Your task to perform on an android device: Clear the cart on newegg.com. Search for dell xps on newegg.com, select the first entry, and add it to the cart. Image 0: 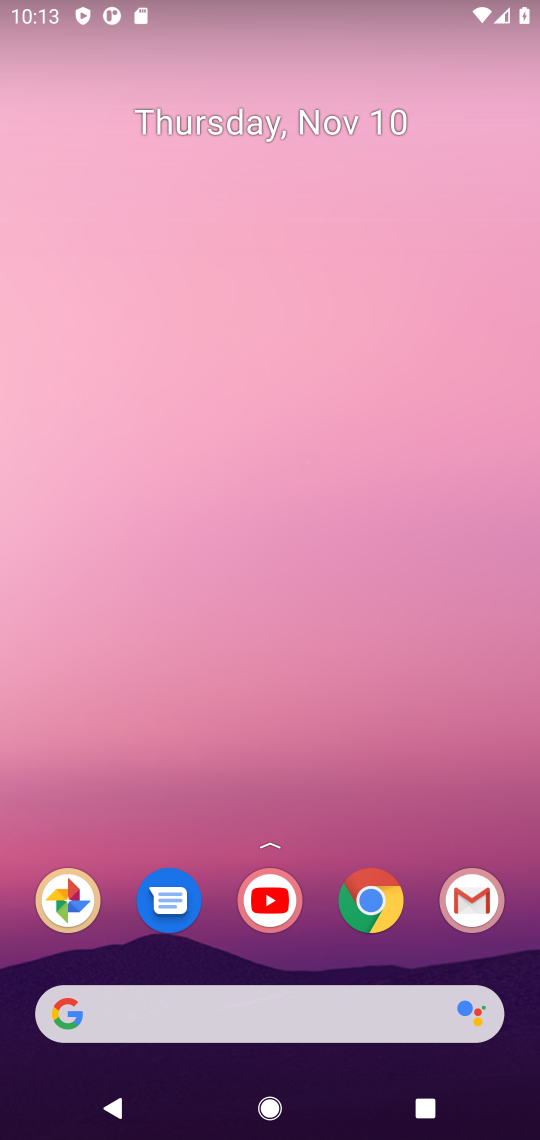
Step 0: click (373, 892)
Your task to perform on an android device: Clear the cart on newegg.com. Search for dell xps on newegg.com, select the first entry, and add it to the cart. Image 1: 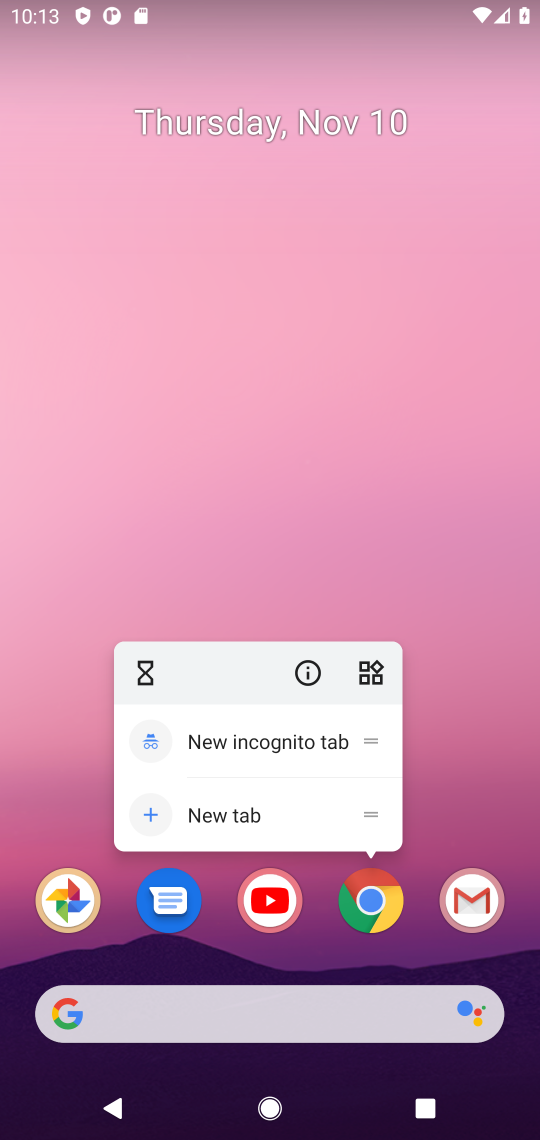
Step 1: click (373, 898)
Your task to perform on an android device: Clear the cart on newegg.com. Search for dell xps on newegg.com, select the first entry, and add it to the cart. Image 2: 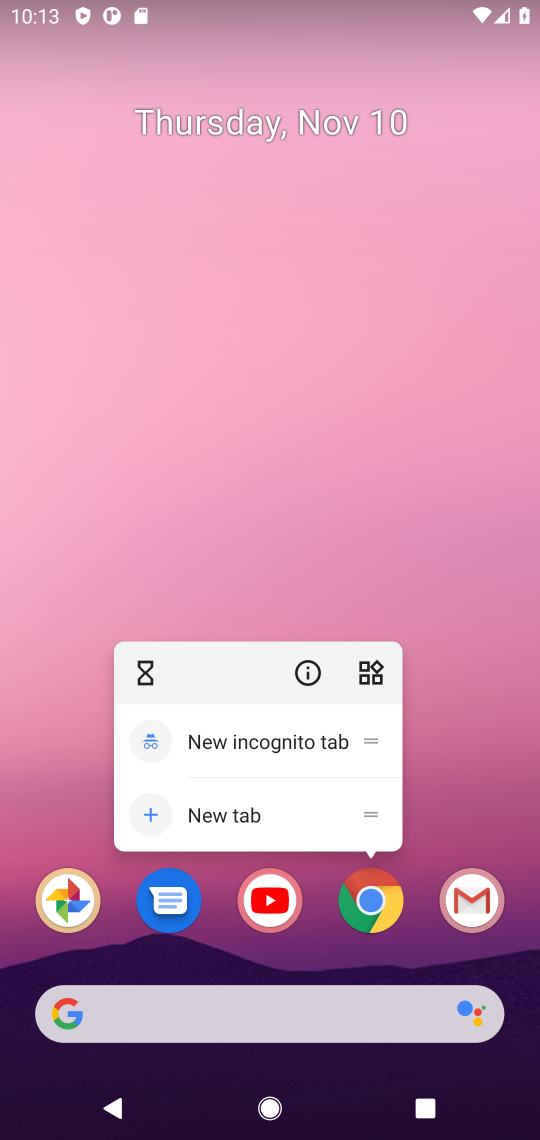
Step 2: click (373, 898)
Your task to perform on an android device: Clear the cart on newegg.com. Search for dell xps on newegg.com, select the first entry, and add it to the cart. Image 3: 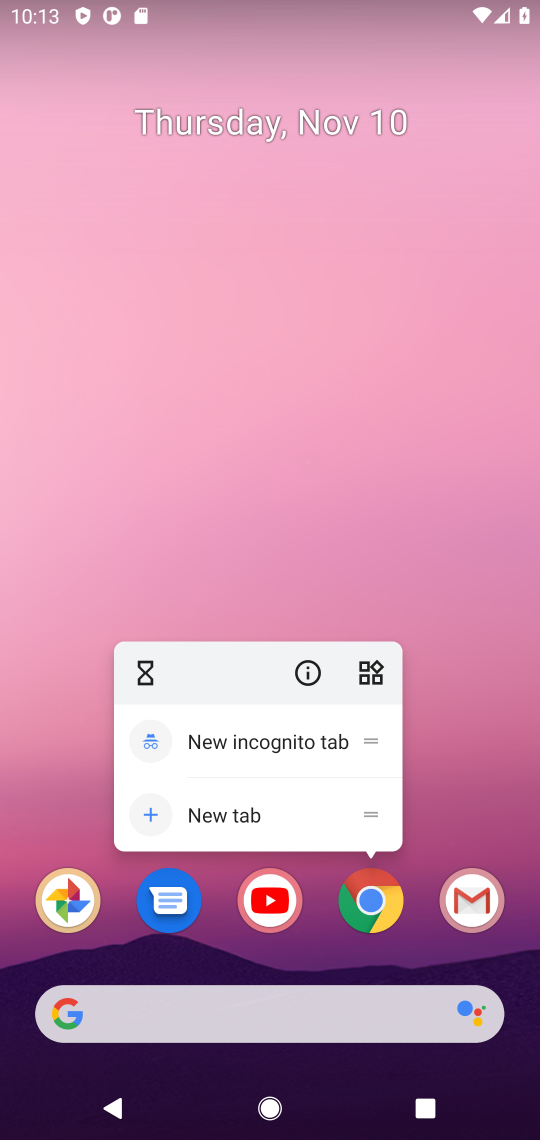
Step 3: click (371, 902)
Your task to perform on an android device: Clear the cart on newegg.com. Search for dell xps on newegg.com, select the first entry, and add it to the cart. Image 4: 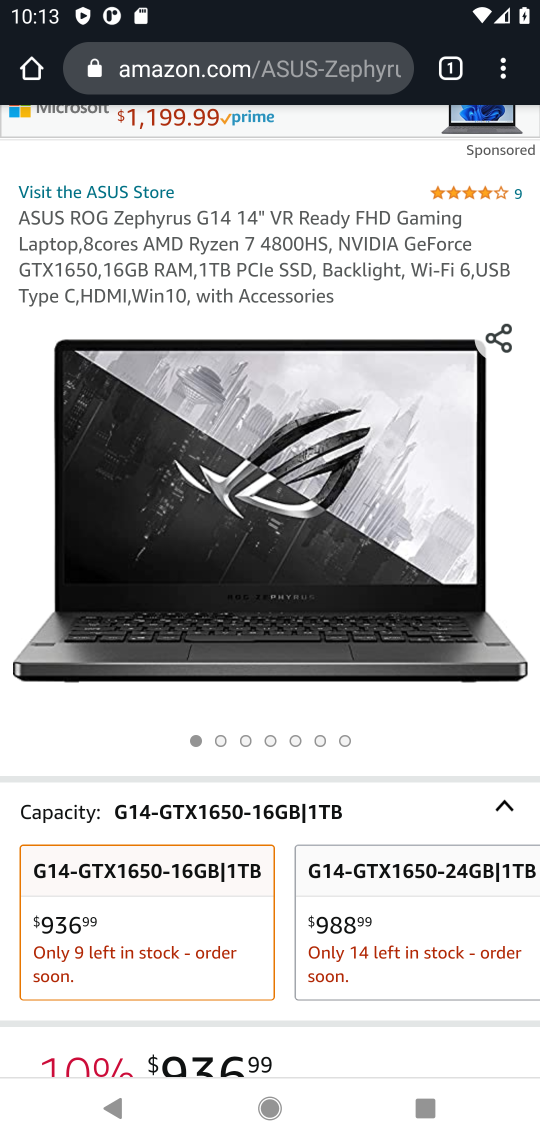
Step 4: click (272, 64)
Your task to perform on an android device: Clear the cart on newegg.com. Search for dell xps on newegg.com, select the first entry, and add it to the cart. Image 5: 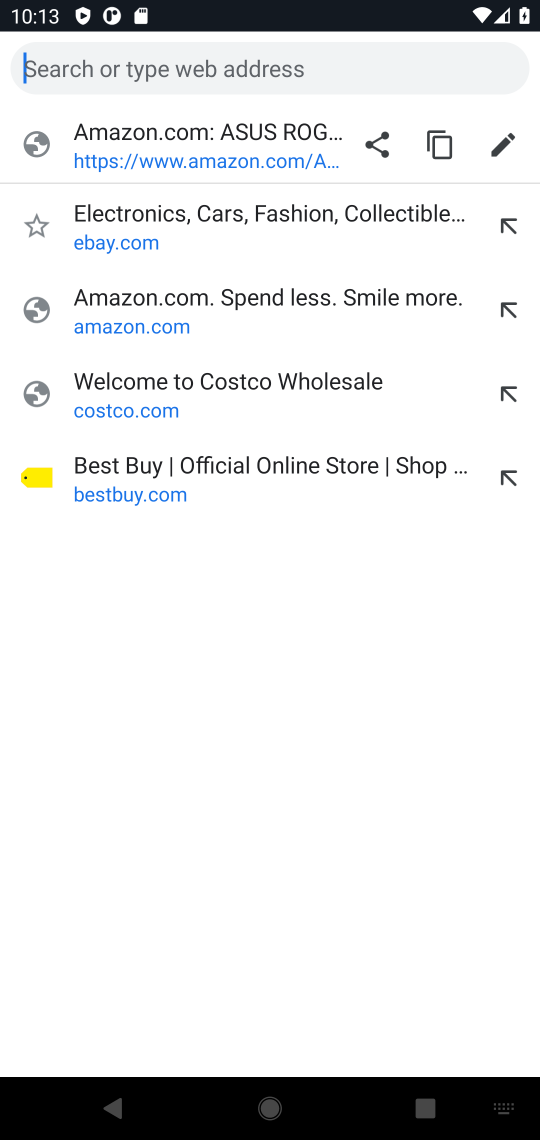
Step 5: type " newegg.com"
Your task to perform on an android device: Clear the cart on newegg.com. Search for dell xps on newegg.com, select the first entry, and add it to the cart. Image 6: 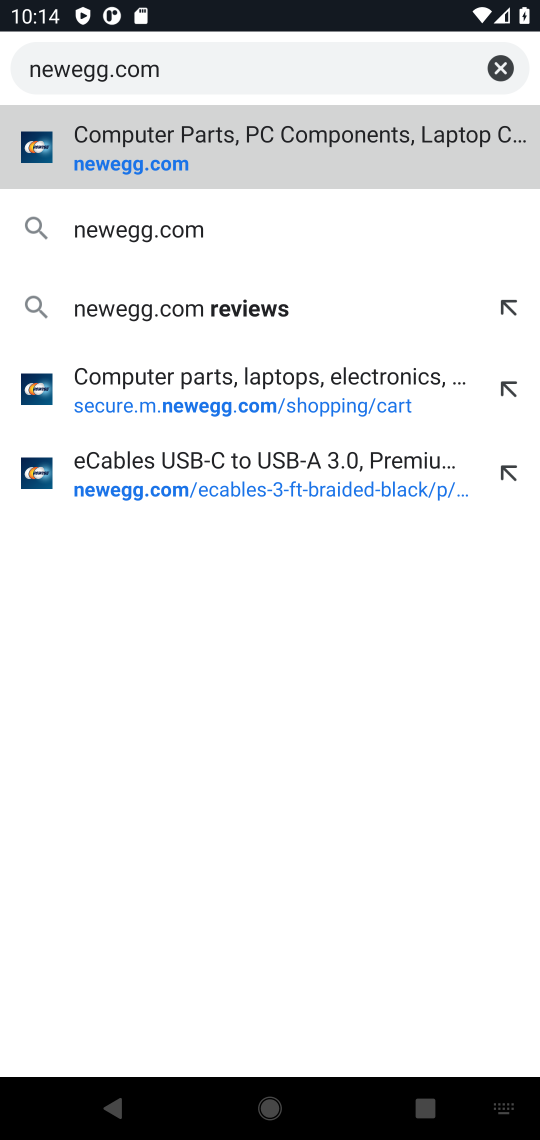
Step 6: press enter
Your task to perform on an android device: Clear the cart on newegg.com. Search for dell xps on newegg.com, select the first entry, and add it to the cart. Image 7: 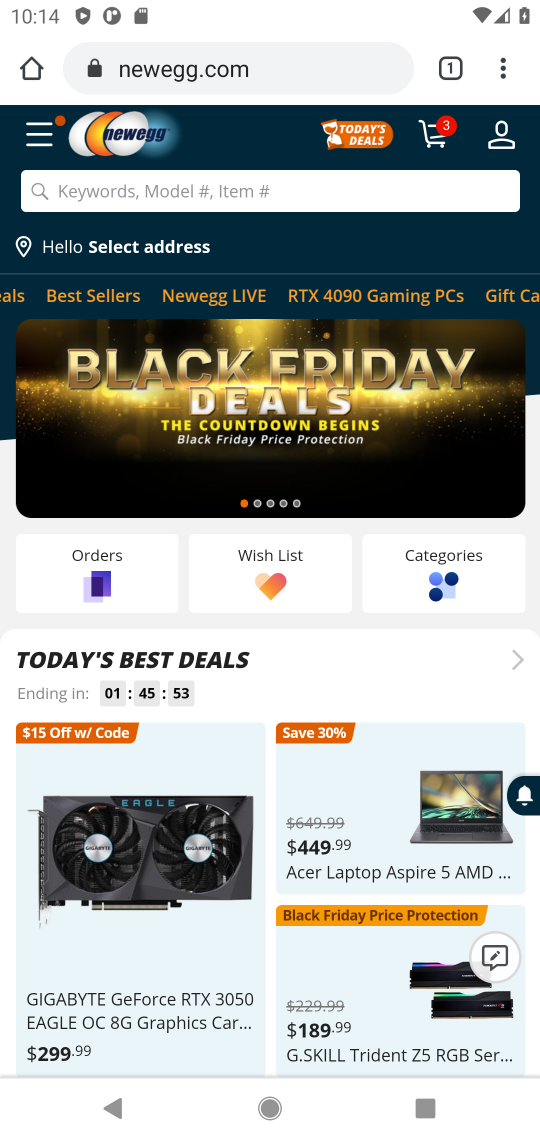
Step 7: click (232, 191)
Your task to perform on an android device: Clear the cart on newegg.com. Search for dell xps on newegg.com, select the first entry, and add it to the cart. Image 8: 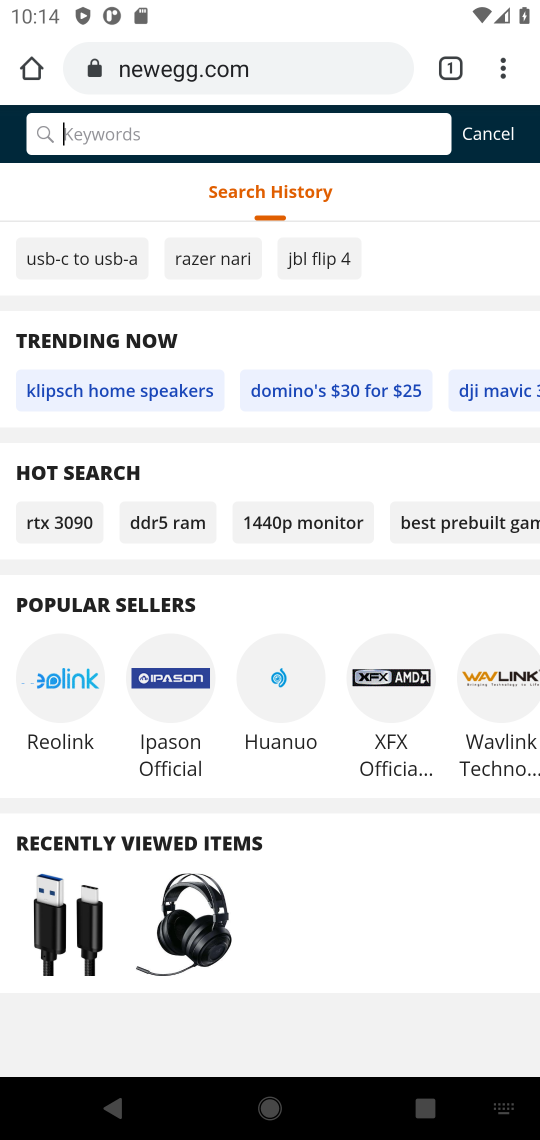
Step 8: type "dell xps"
Your task to perform on an android device: Clear the cart on newegg.com. Search for dell xps on newegg.com, select the first entry, and add it to the cart. Image 9: 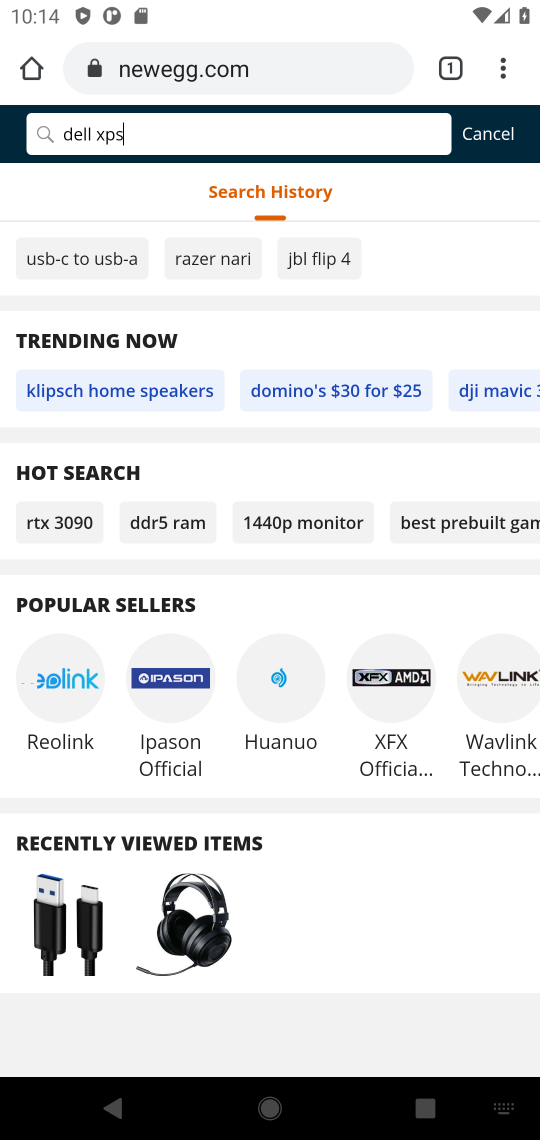
Step 9: press enter
Your task to perform on an android device: Clear the cart on newegg.com. Search for dell xps on newegg.com, select the first entry, and add it to the cart. Image 10: 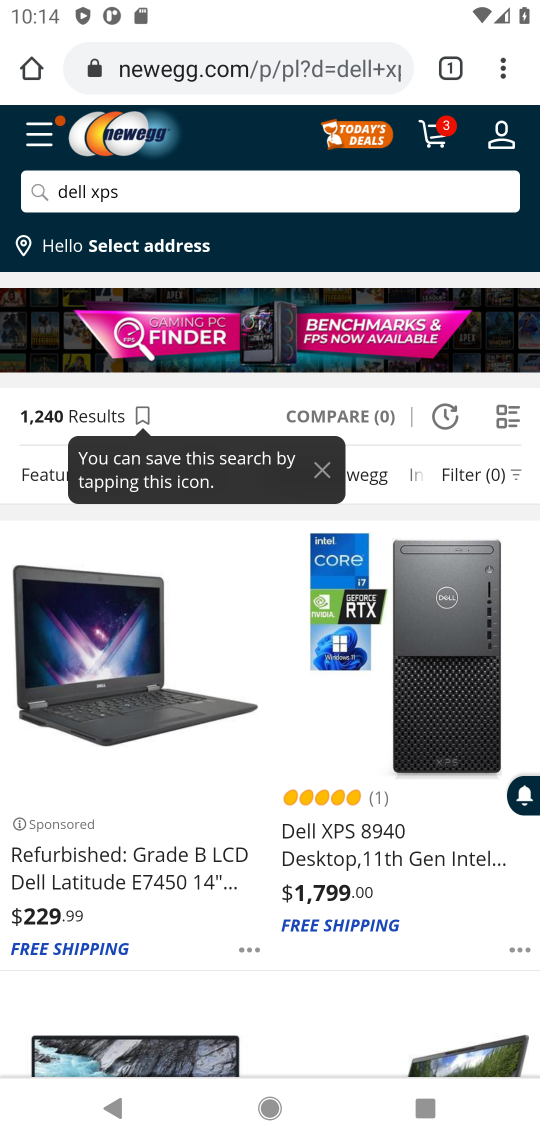
Step 10: task complete